Your task to perform on an android device: show emergency info Image 0: 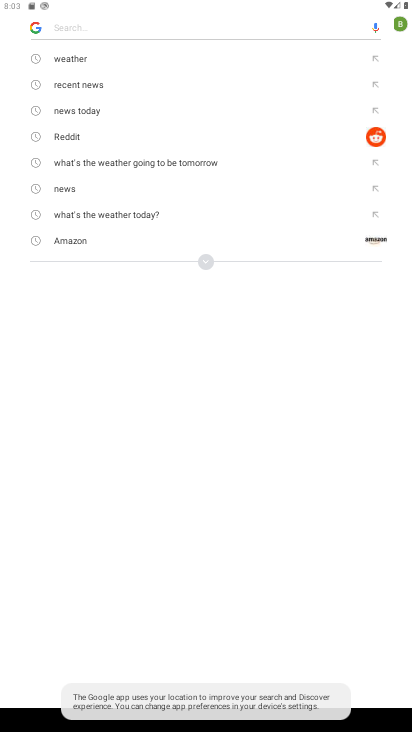
Step 0: press home button
Your task to perform on an android device: show emergency info Image 1: 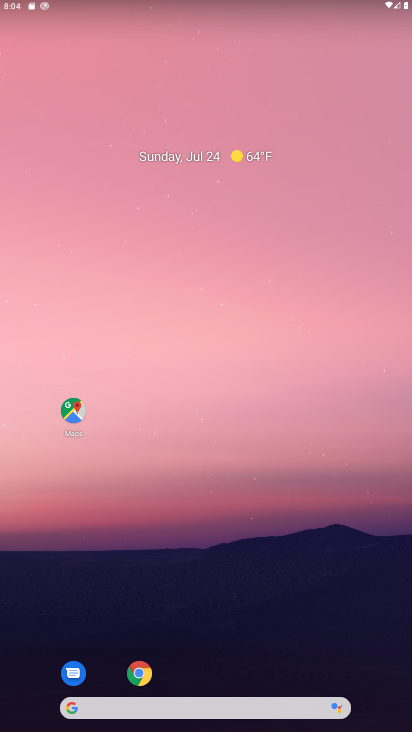
Step 1: drag from (379, 634) to (307, 252)
Your task to perform on an android device: show emergency info Image 2: 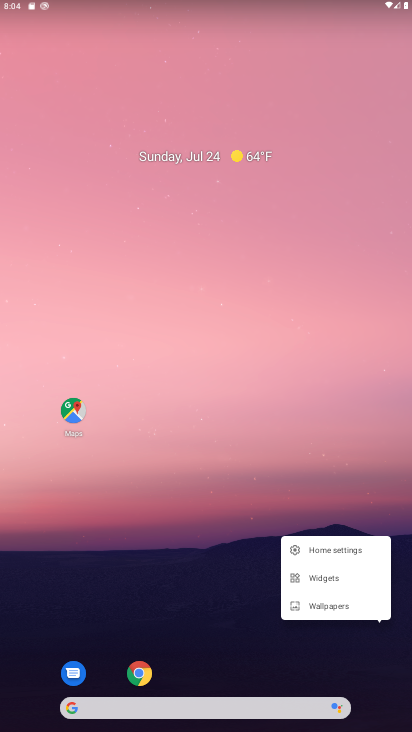
Step 2: click (276, 452)
Your task to perform on an android device: show emergency info Image 3: 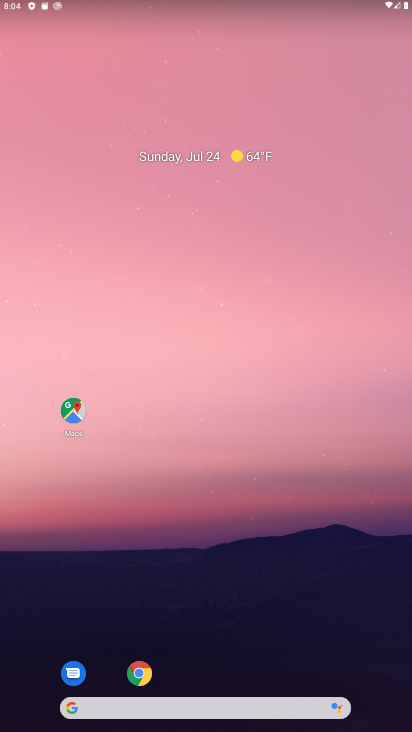
Step 3: drag from (329, 599) to (404, 3)
Your task to perform on an android device: show emergency info Image 4: 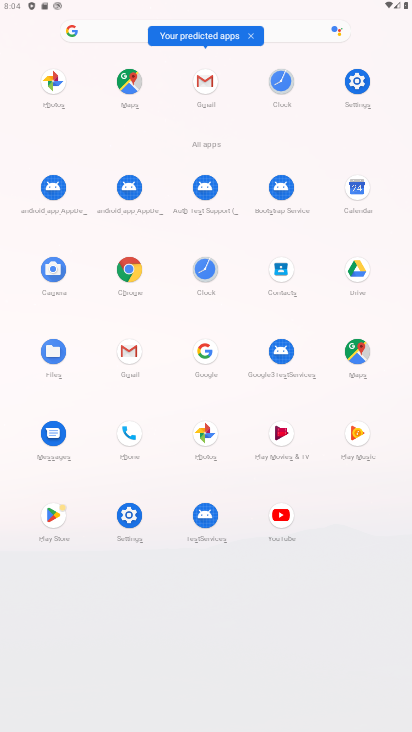
Step 4: click (133, 509)
Your task to perform on an android device: show emergency info Image 5: 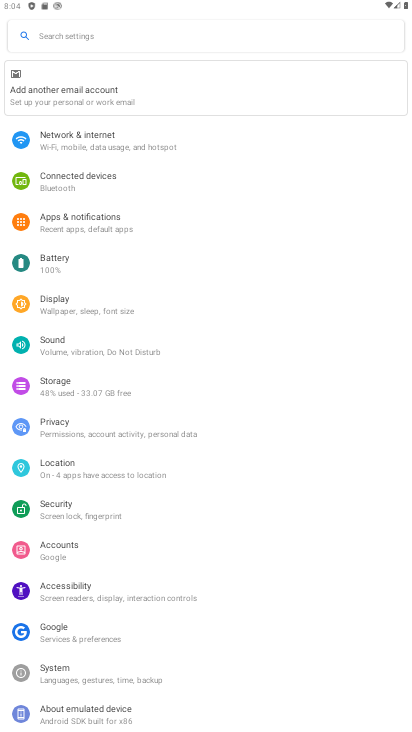
Step 5: drag from (319, 656) to (275, 221)
Your task to perform on an android device: show emergency info Image 6: 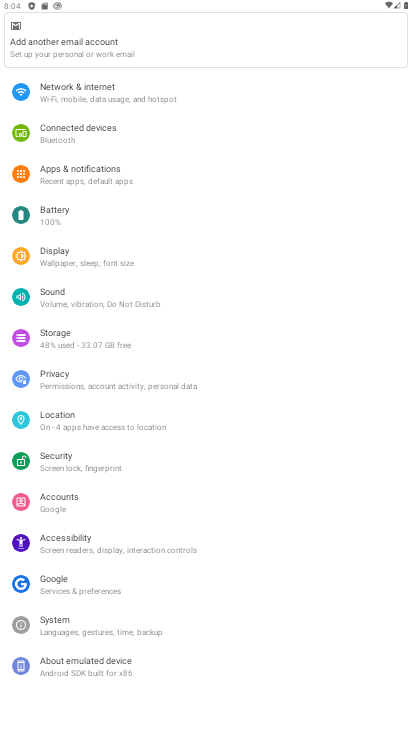
Step 6: click (144, 667)
Your task to perform on an android device: show emergency info Image 7: 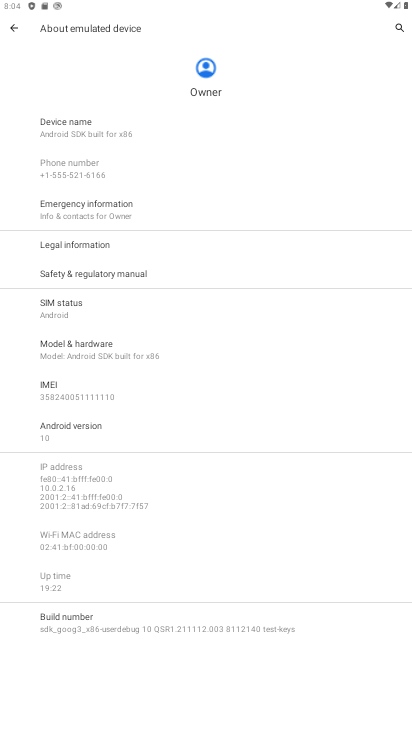
Step 7: click (135, 207)
Your task to perform on an android device: show emergency info Image 8: 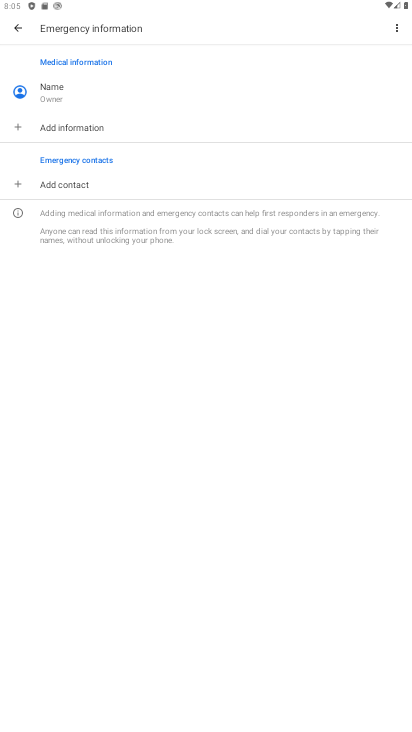
Step 8: task complete